Your task to perform on an android device: open app "Roku - Official Remote Control" Image 0: 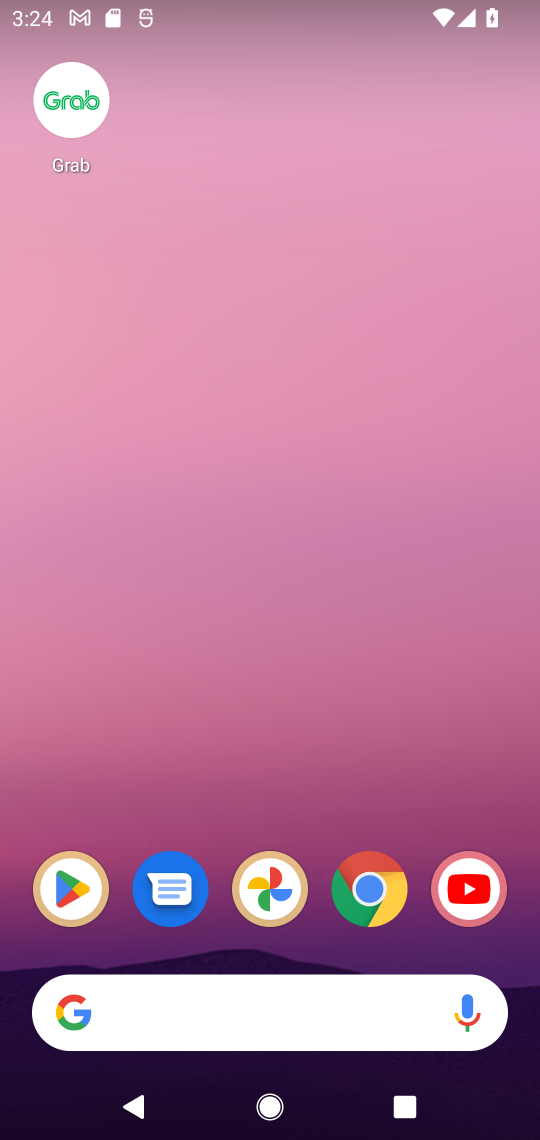
Step 0: click (85, 928)
Your task to perform on an android device: open app "Roku - Official Remote Control" Image 1: 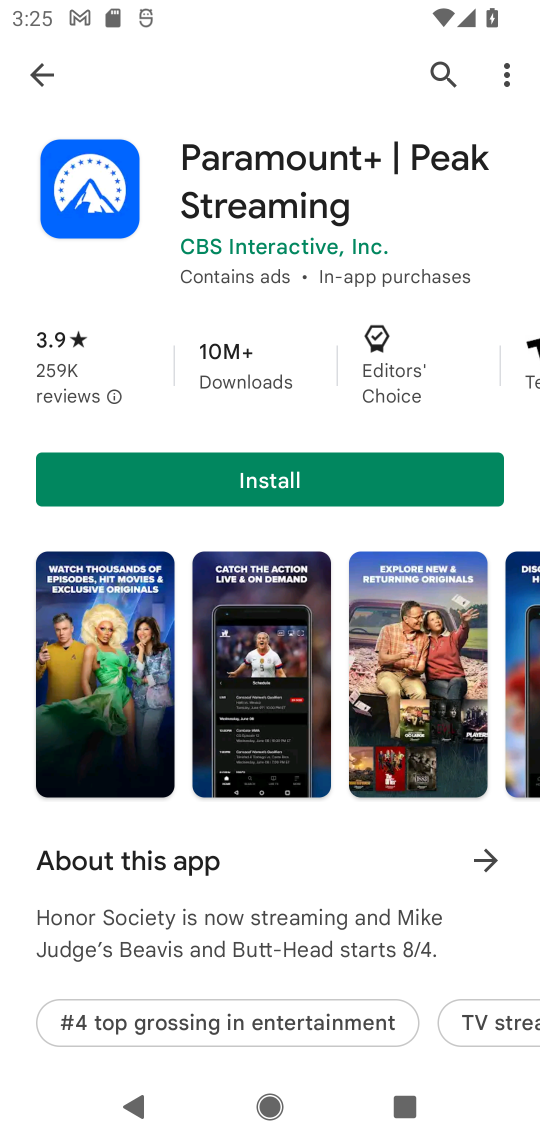
Step 1: click (452, 73)
Your task to perform on an android device: open app "Roku - Official Remote Control" Image 2: 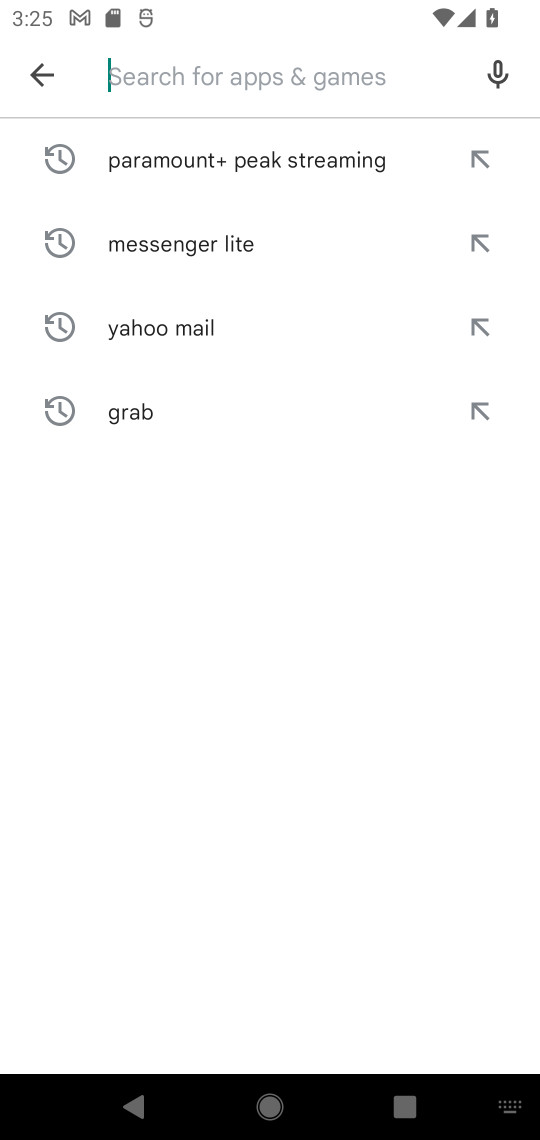
Step 2: type "Roku - Official Remote Control"
Your task to perform on an android device: open app "Roku - Official Remote Control" Image 3: 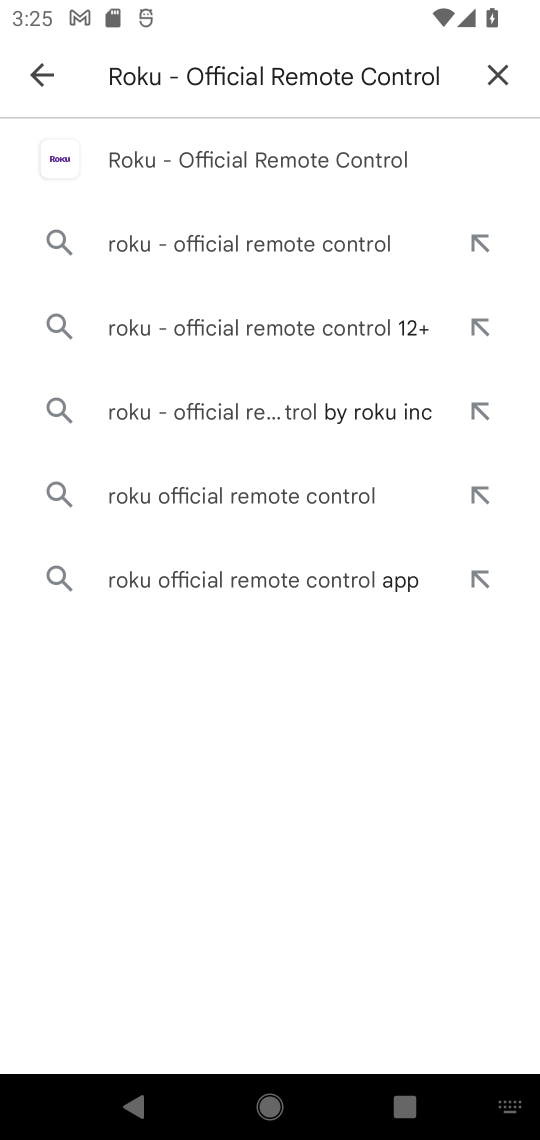
Step 3: click (165, 334)
Your task to perform on an android device: open app "Roku - Official Remote Control" Image 4: 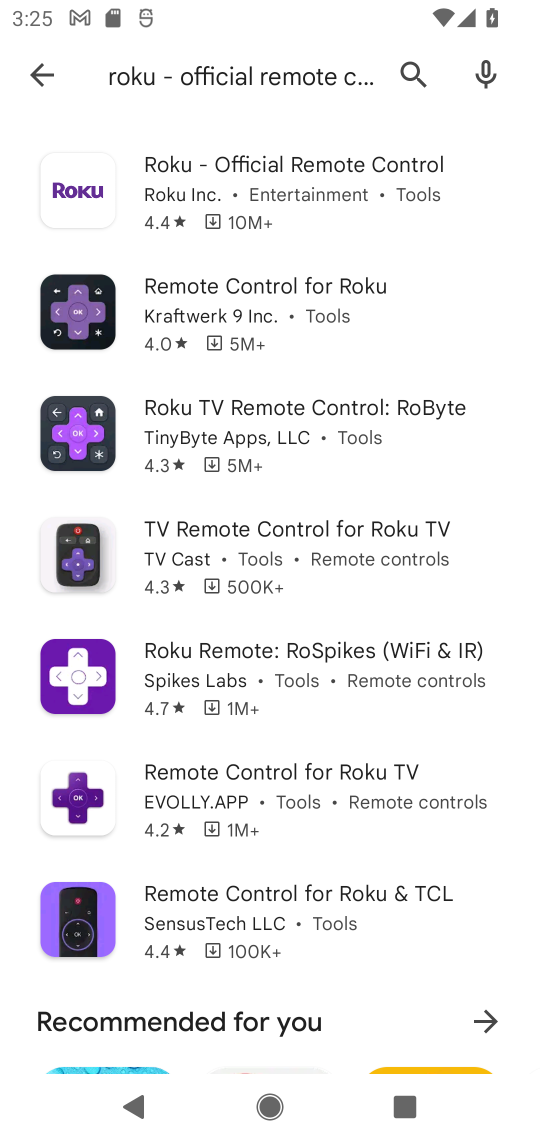
Step 4: click (415, 190)
Your task to perform on an android device: open app "Roku - Official Remote Control" Image 5: 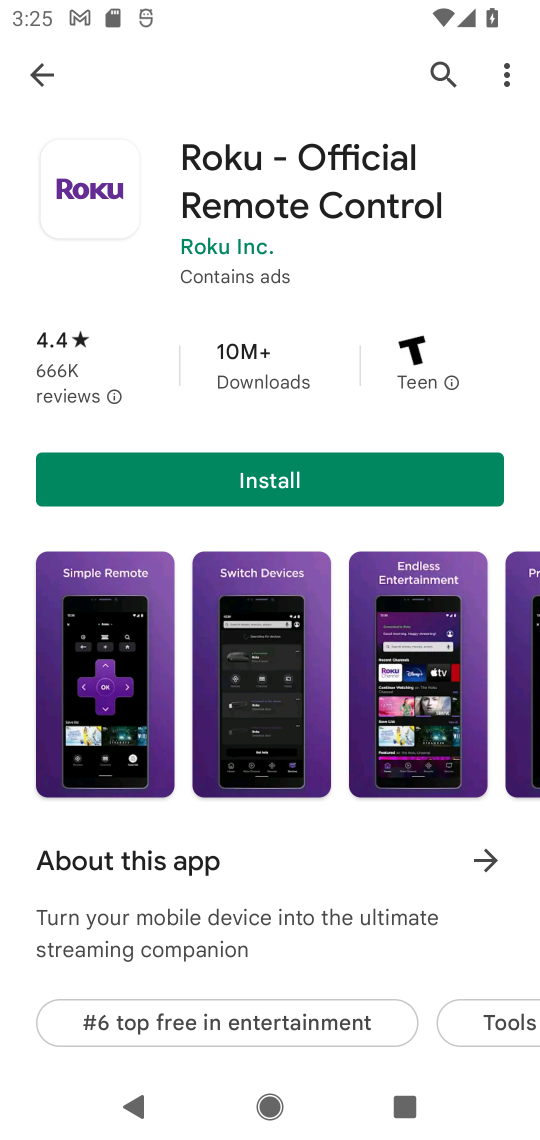
Step 5: task complete